Your task to perform on an android device: toggle priority inbox in the gmail app Image 0: 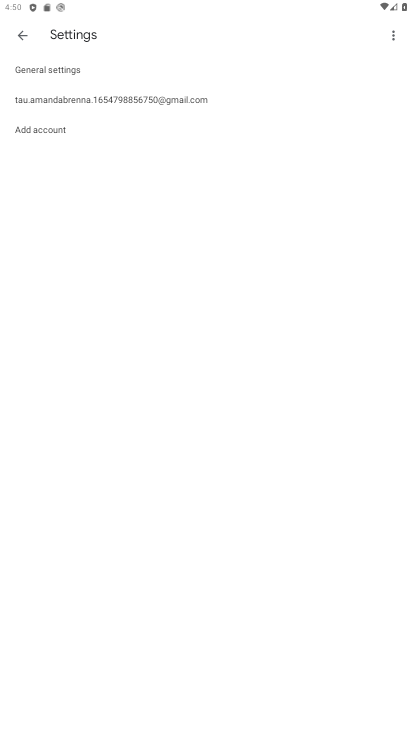
Step 0: press home button
Your task to perform on an android device: toggle priority inbox in the gmail app Image 1: 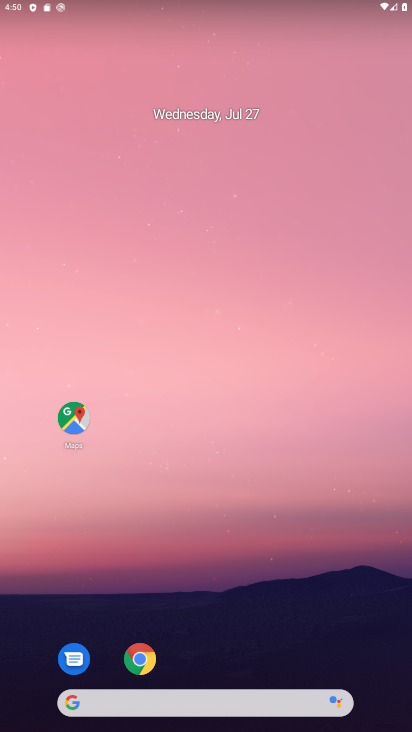
Step 1: drag from (267, 630) to (301, 36)
Your task to perform on an android device: toggle priority inbox in the gmail app Image 2: 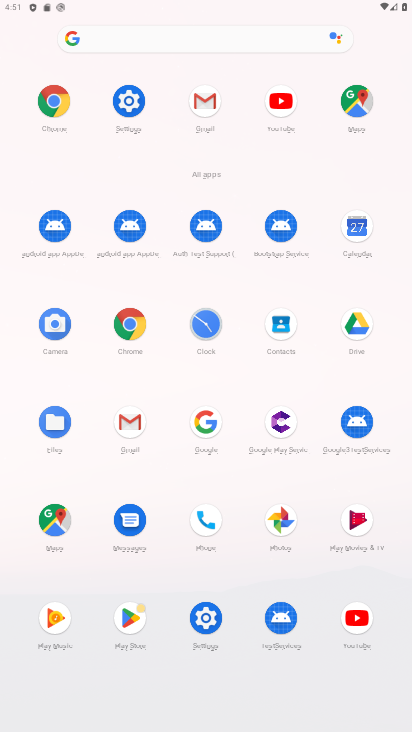
Step 2: click (129, 425)
Your task to perform on an android device: toggle priority inbox in the gmail app Image 3: 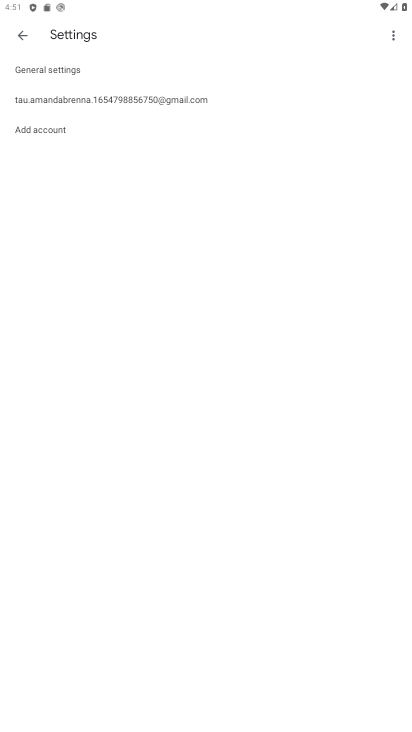
Step 3: click (80, 98)
Your task to perform on an android device: toggle priority inbox in the gmail app Image 4: 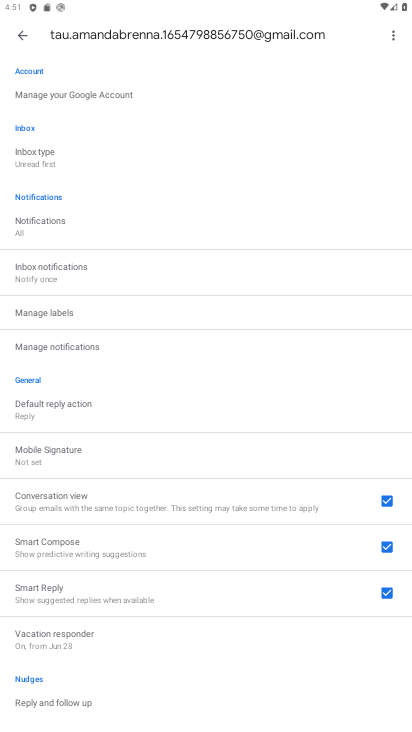
Step 4: click (36, 148)
Your task to perform on an android device: toggle priority inbox in the gmail app Image 5: 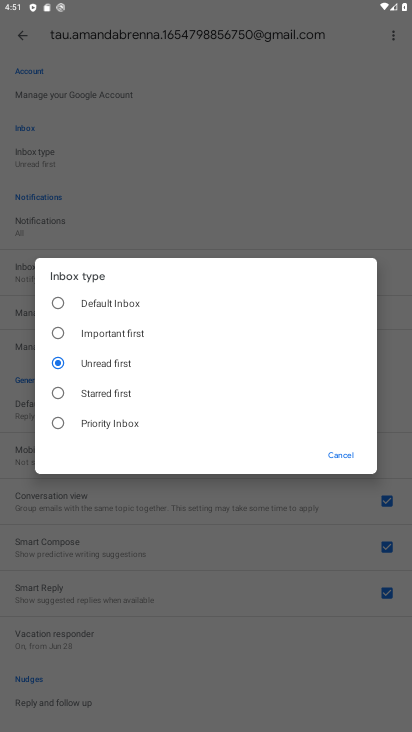
Step 5: click (111, 420)
Your task to perform on an android device: toggle priority inbox in the gmail app Image 6: 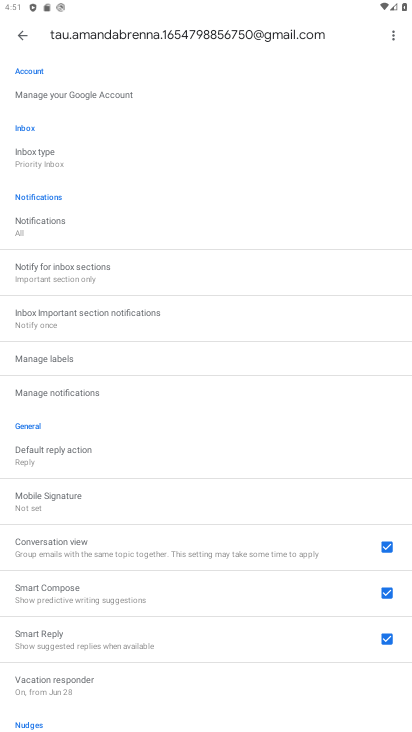
Step 6: task complete